Your task to perform on an android device: Open the Play Movies app and select the watchlist tab. Image 0: 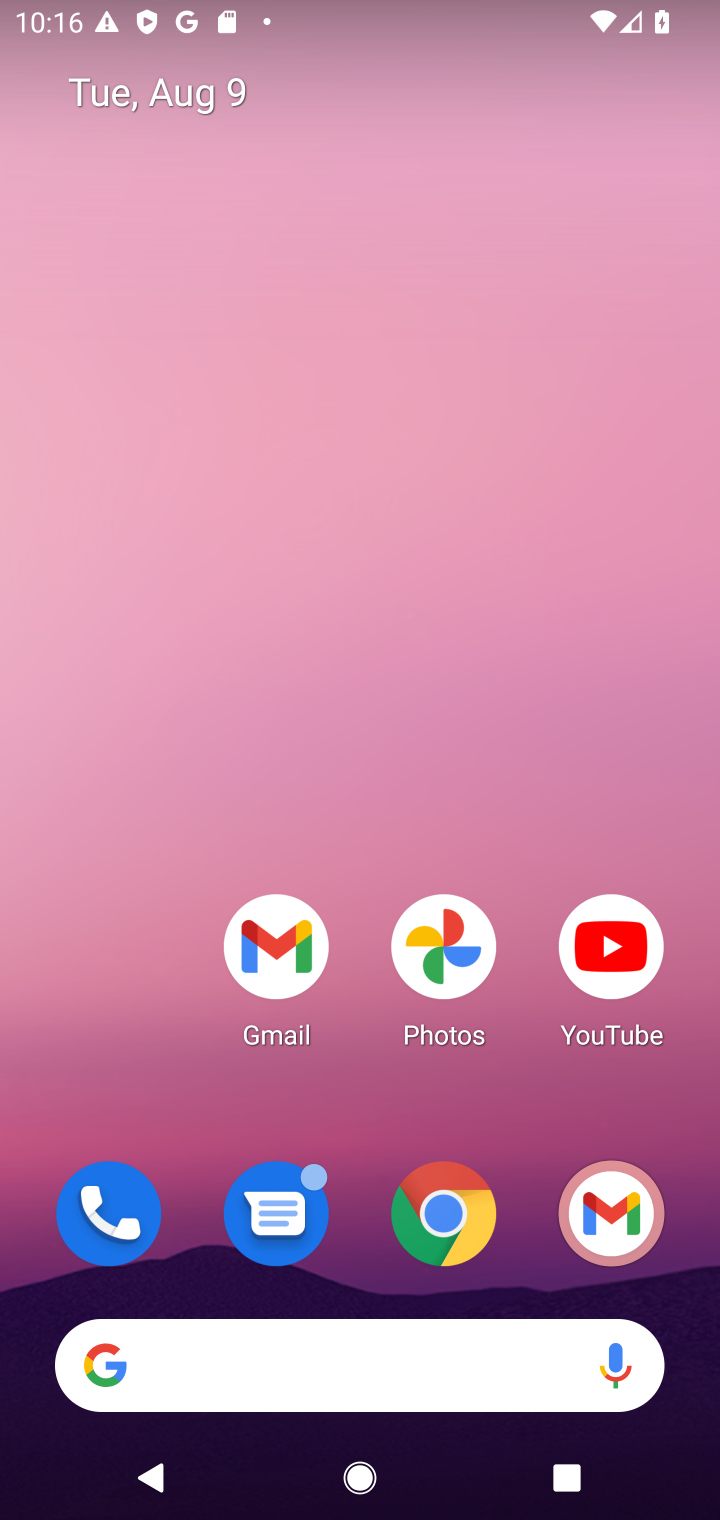
Step 0: drag from (354, 1054) to (373, 17)
Your task to perform on an android device: Open the Play Movies app and select the watchlist tab. Image 1: 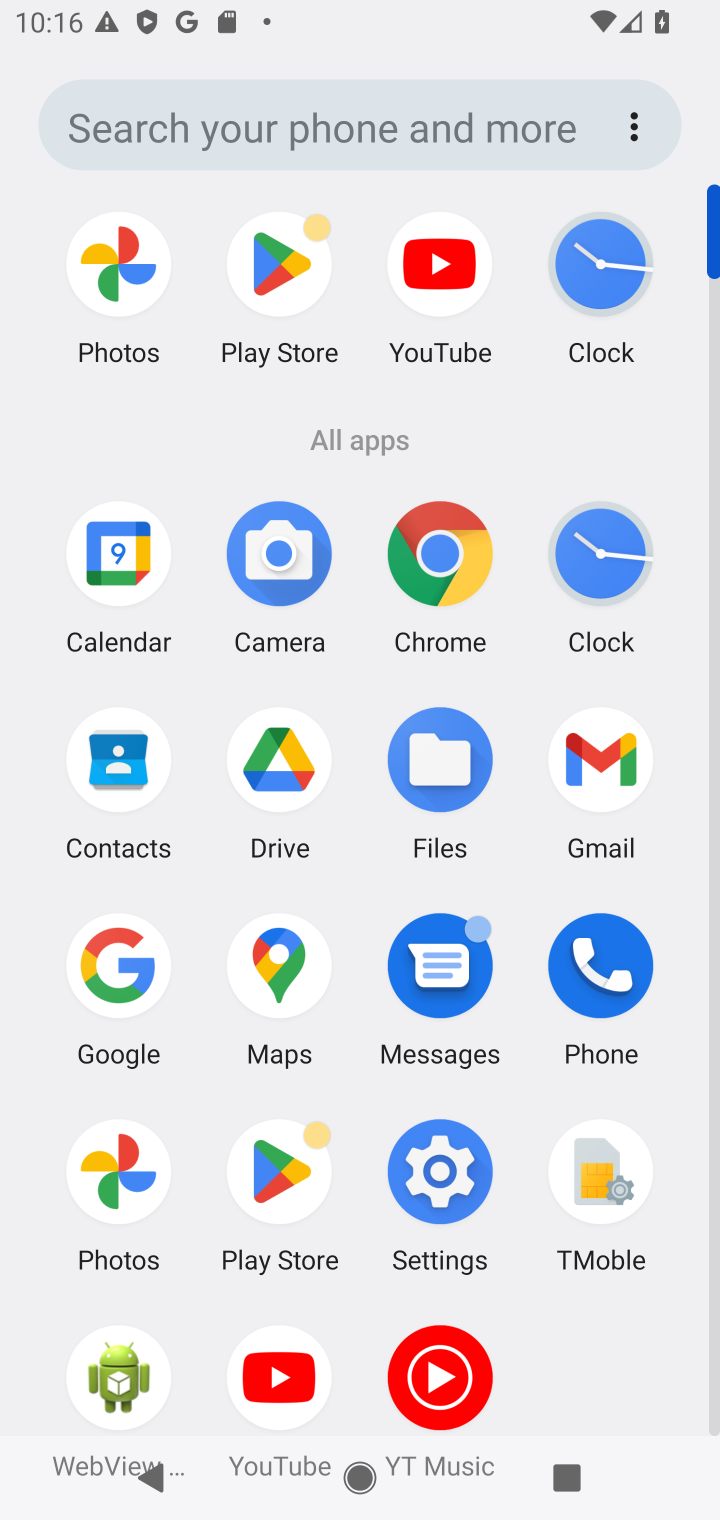
Step 1: task complete